Your task to perform on an android device: toggle airplane mode Image 0: 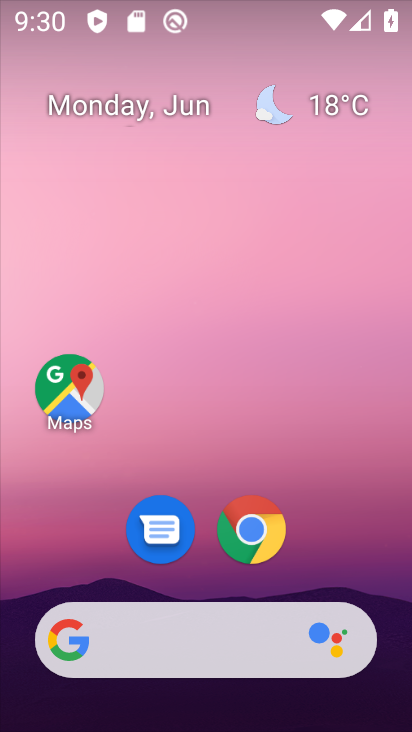
Step 0: drag from (201, 614) to (129, 6)
Your task to perform on an android device: toggle airplane mode Image 1: 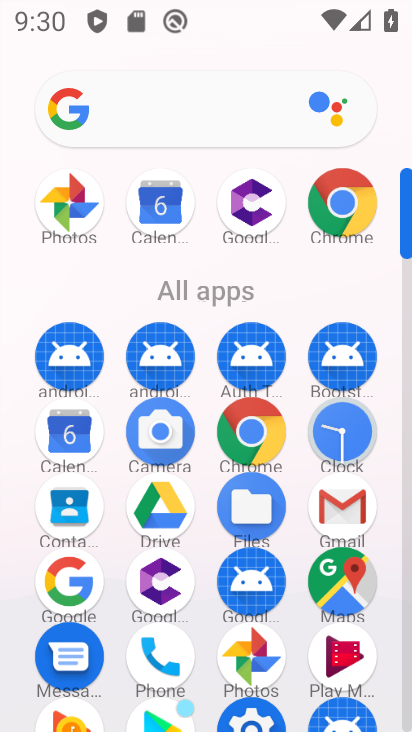
Step 1: click (254, 704)
Your task to perform on an android device: toggle airplane mode Image 2: 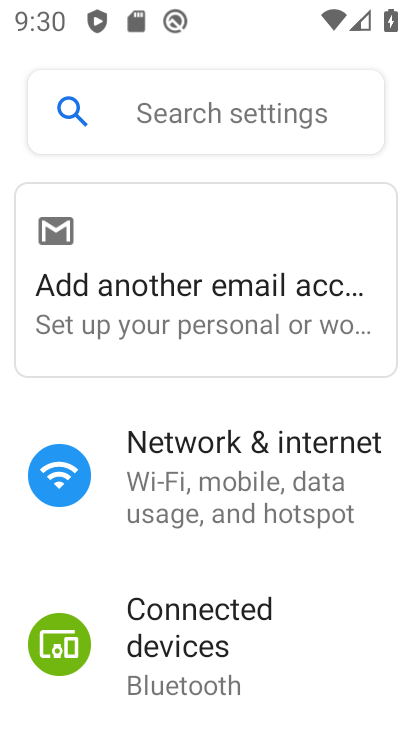
Step 2: click (216, 469)
Your task to perform on an android device: toggle airplane mode Image 3: 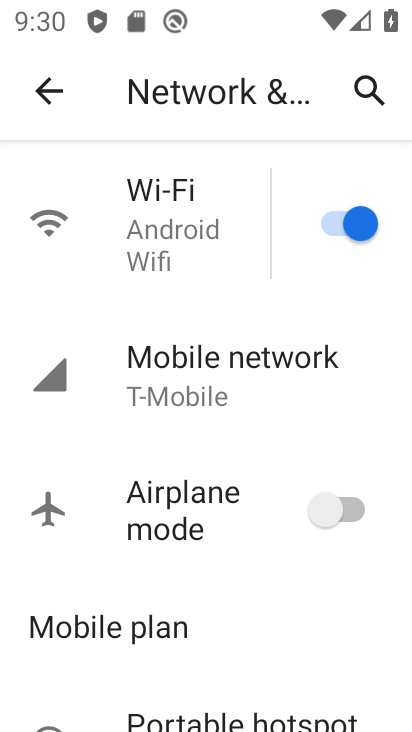
Step 3: click (341, 508)
Your task to perform on an android device: toggle airplane mode Image 4: 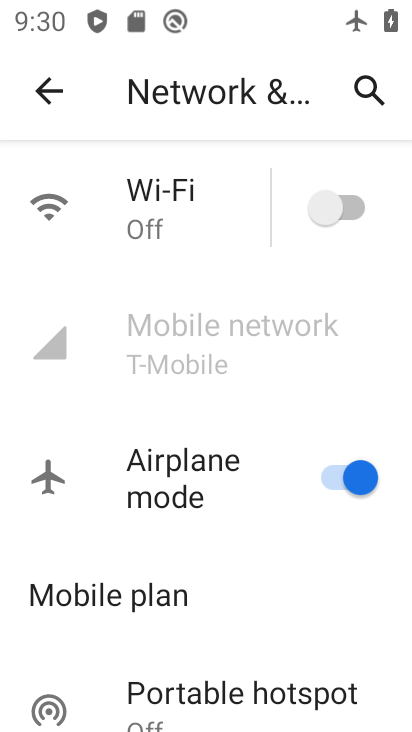
Step 4: task complete